Your task to perform on an android device: turn notification dots off Image 0: 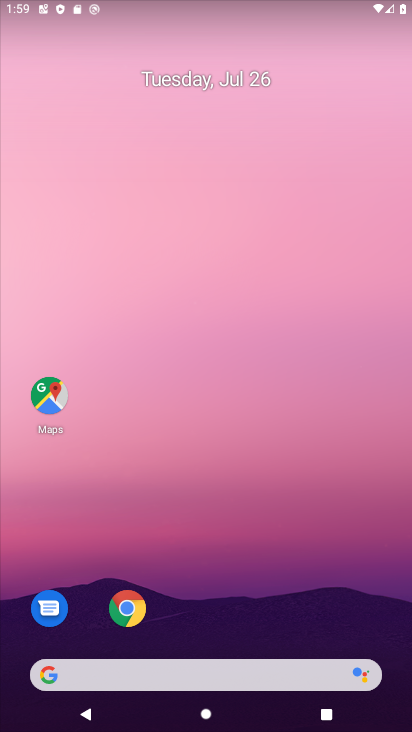
Step 0: drag from (255, 620) to (254, 13)
Your task to perform on an android device: turn notification dots off Image 1: 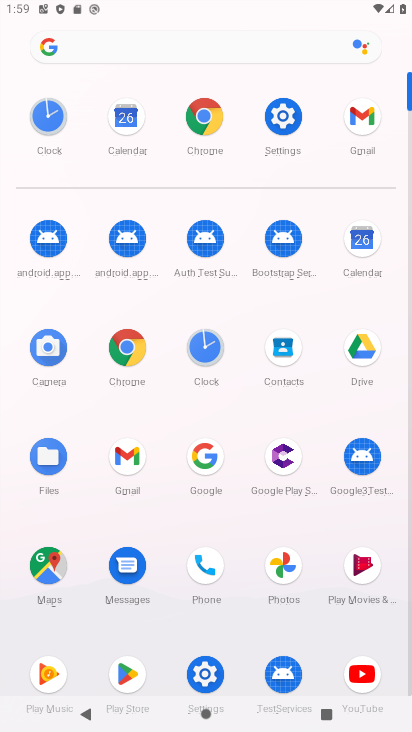
Step 1: click (283, 150)
Your task to perform on an android device: turn notification dots off Image 2: 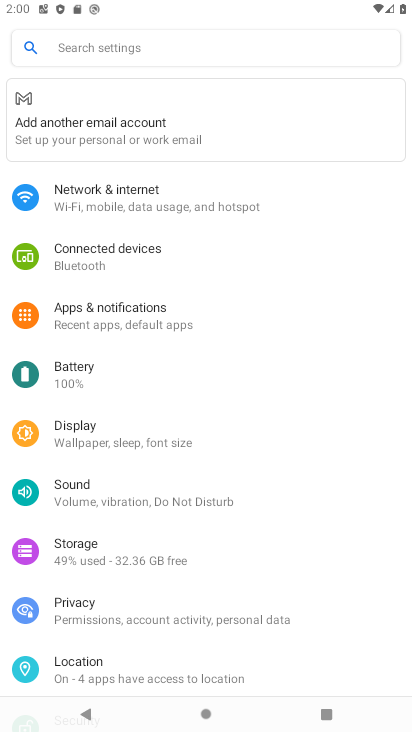
Step 2: click (127, 331)
Your task to perform on an android device: turn notification dots off Image 3: 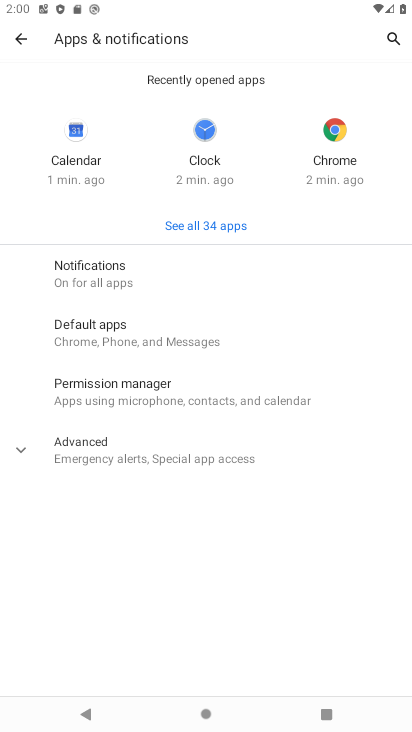
Step 3: click (101, 273)
Your task to perform on an android device: turn notification dots off Image 4: 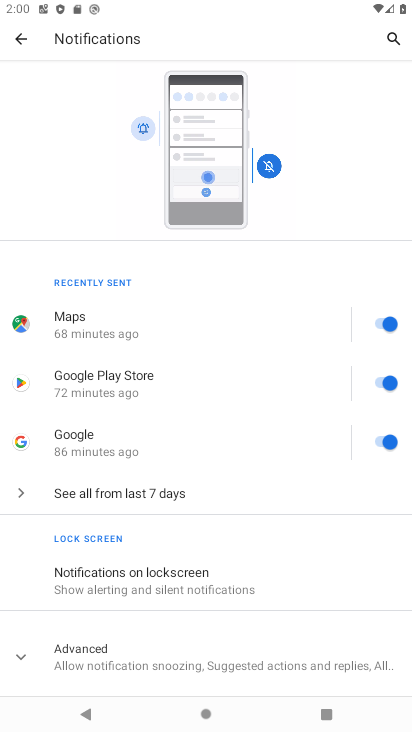
Step 4: drag from (258, 562) to (234, 263)
Your task to perform on an android device: turn notification dots off Image 5: 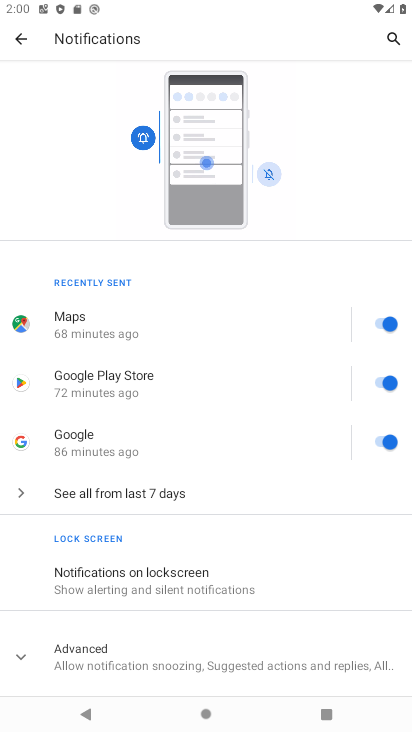
Step 5: click (246, 649)
Your task to perform on an android device: turn notification dots off Image 6: 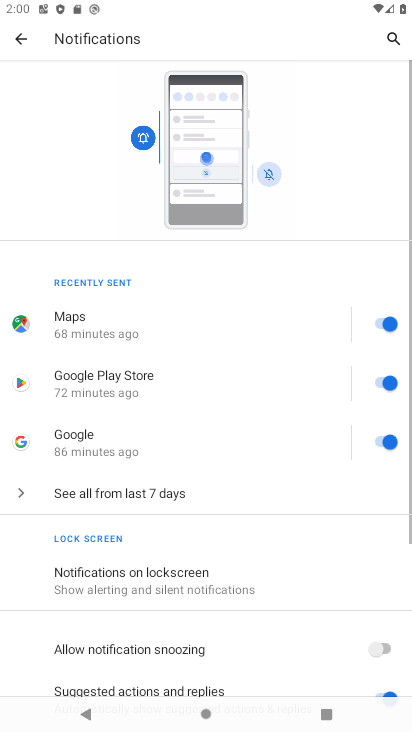
Step 6: task complete